Your task to perform on an android device: turn off wifi Image 0: 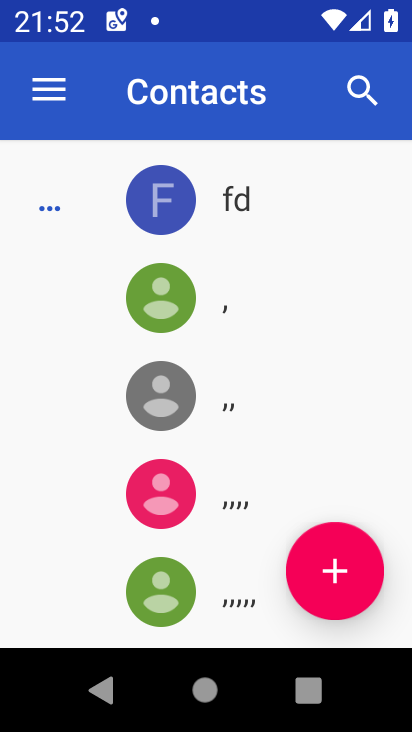
Step 0: press home button
Your task to perform on an android device: turn off wifi Image 1: 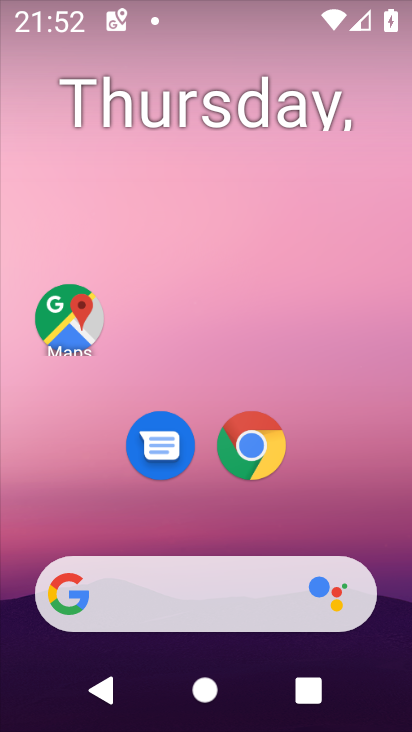
Step 1: drag from (210, 257) to (206, 166)
Your task to perform on an android device: turn off wifi Image 2: 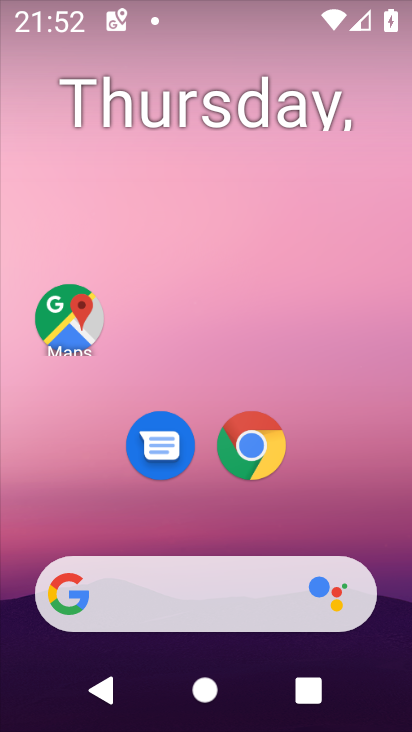
Step 2: drag from (194, 528) to (193, 207)
Your task to perform on an android device: turn off wifi Image 3: 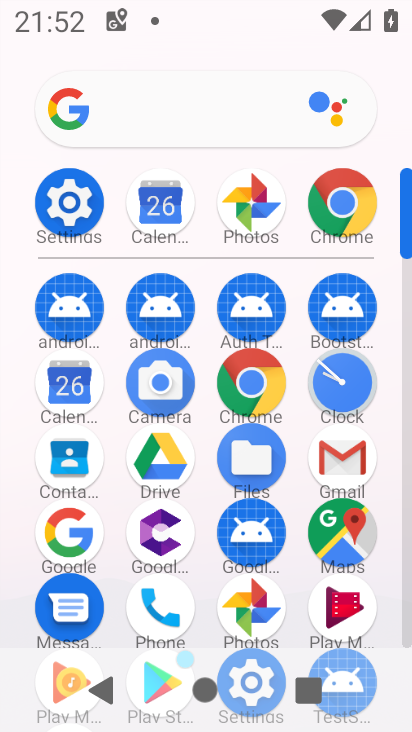
Step 3: drag from (219, 275) to (197, 121)
Your task to perform on an android device: turn off wifi Image 4: 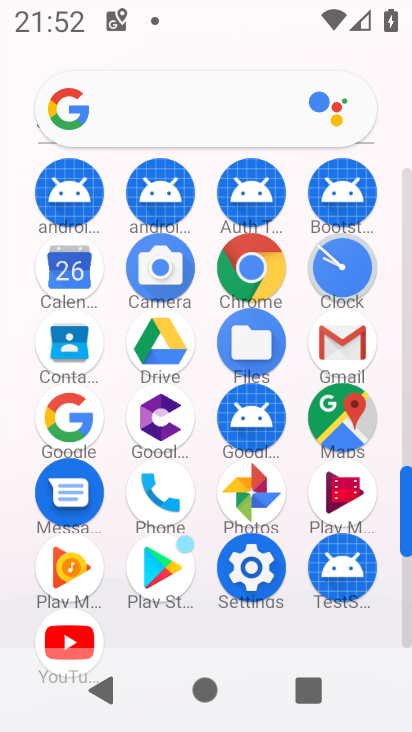
Step 4: click (254, 572)
Your task to perform on an android device: turn off wifi Image 5: 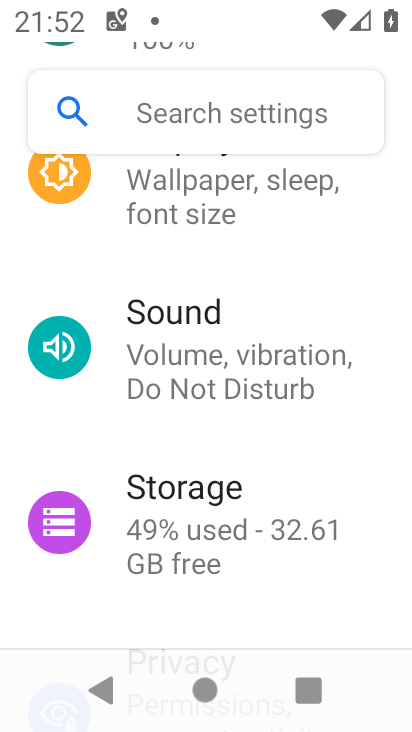
Step 5: drag from (248, 281) to (192, 729)
Your task to perform on an android device: turn off wifi Image 6: 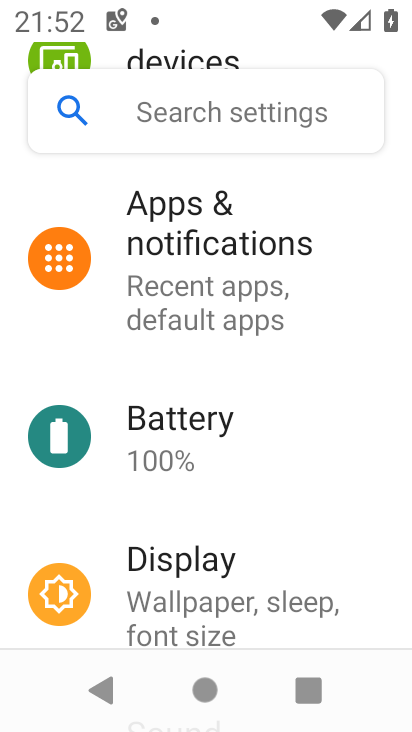
Step 6: drag from (236, 281) to (185, 670)
Your task to perform on an android device: turn off wifi Image 7: 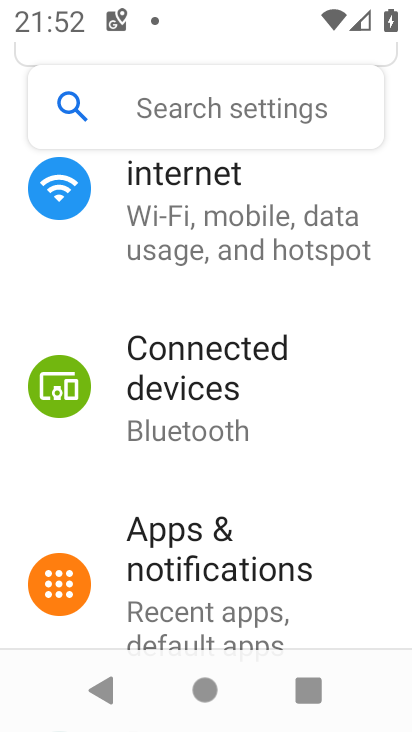
Step 7: click (213, 259)
Your task to perform on an android device: turn off wifi Image 8: 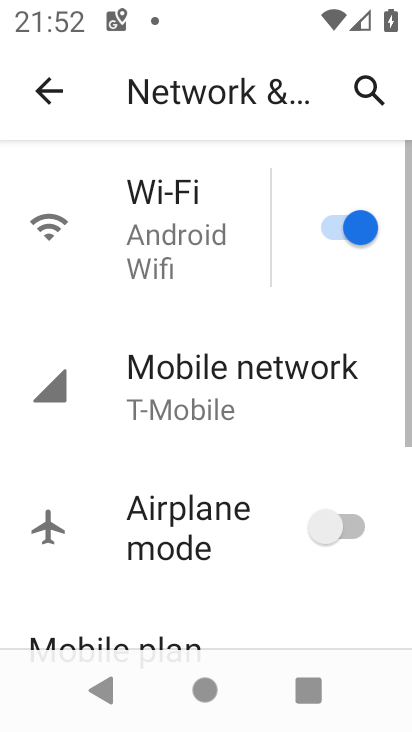
Step 8: click (366, 231)
Your task to perform on an android device: turn off wifi Image 9: 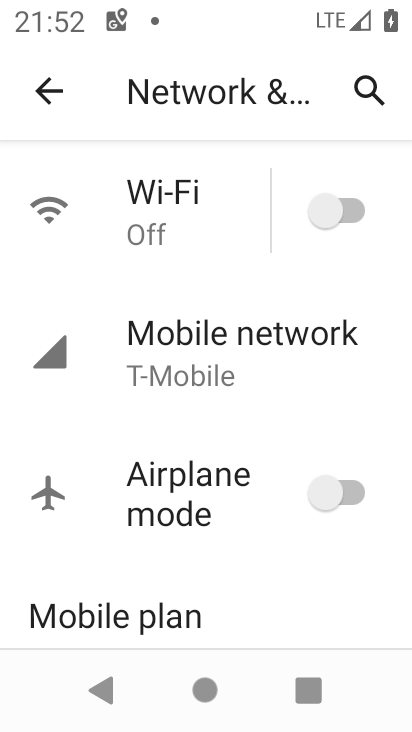
Step 9: task complete